Your task to perform on an android device: move an email to a new category in the gmail app Image 0: 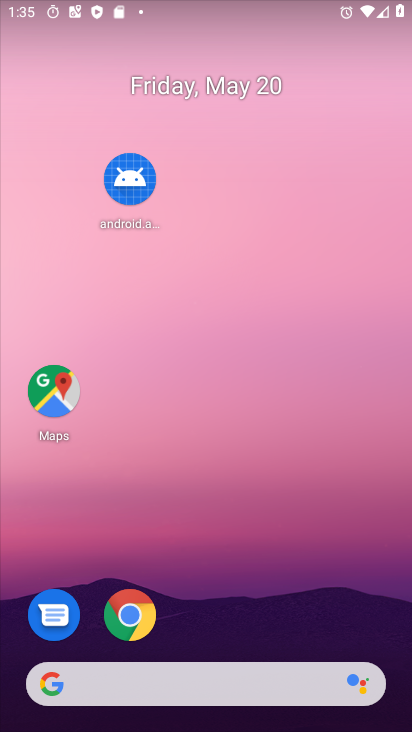
Step 0: drag from (272, 614) to (227, 234)
Your task to perform on an android device: move an email to a new category in the gmail app Image 1: 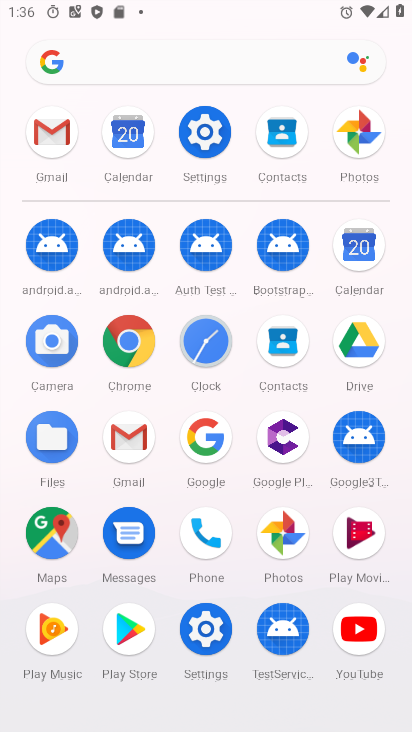
Step 1: click (139, 439)
Your task to perform on an android device: move an email to a new category in the gmail app Image 2: 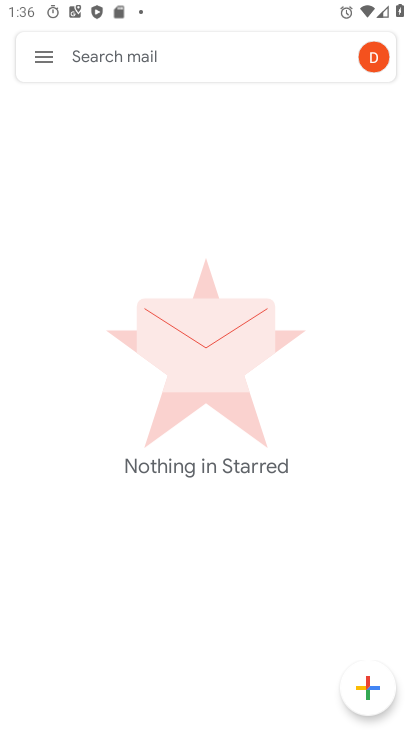
Step 2: click (42, 51)
Your task to perform on an android device: move an email to a new category in the gmail app Image 3: 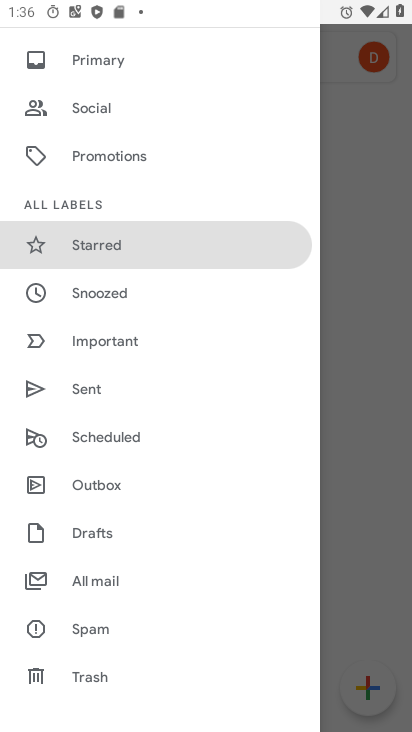
Step 3: drag from (219, 648) to (223, 280)
Your task to perform on an android device: move an email to a new category in the gmail app Image 4: 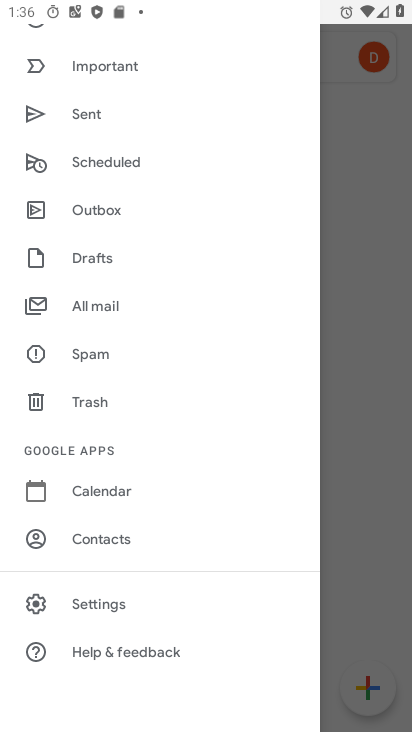
Step 4: click (146, 309)
Your task to perform on an android device: move an email to a new category in the gmail app Image 5: 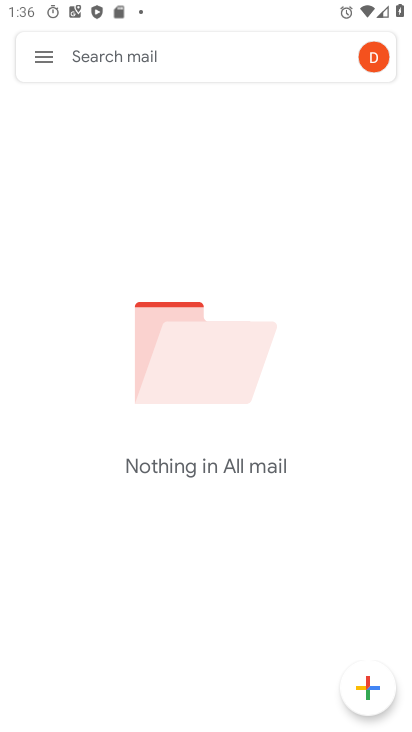
Step 5: task complete